Your task to perform on an android device: Search for Italian restaurants on Maps Image 0: 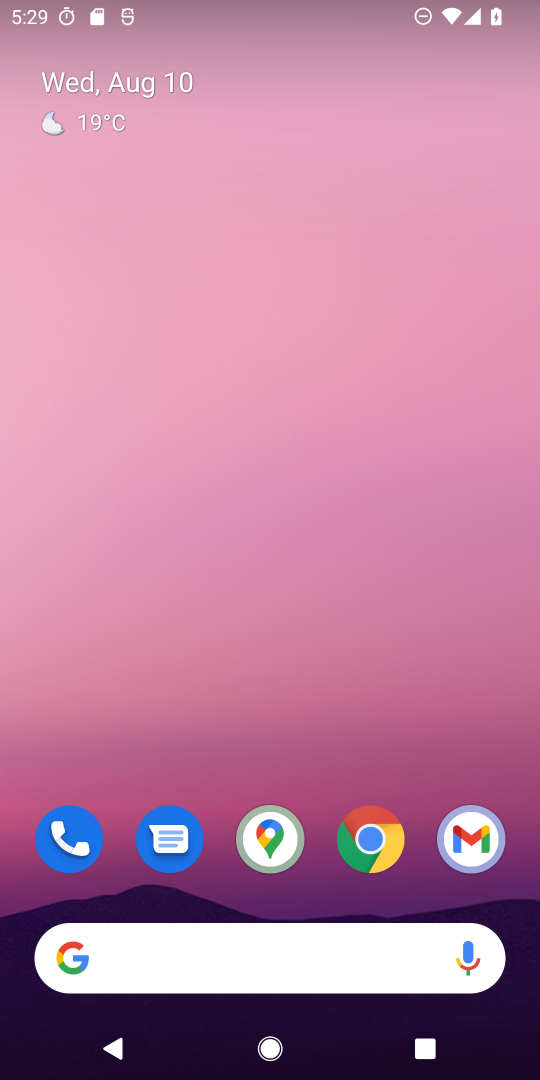
Step 0: click (254, 847)
Your task to perform on an android device: Search for Italian restaurants on Maps Image 1: 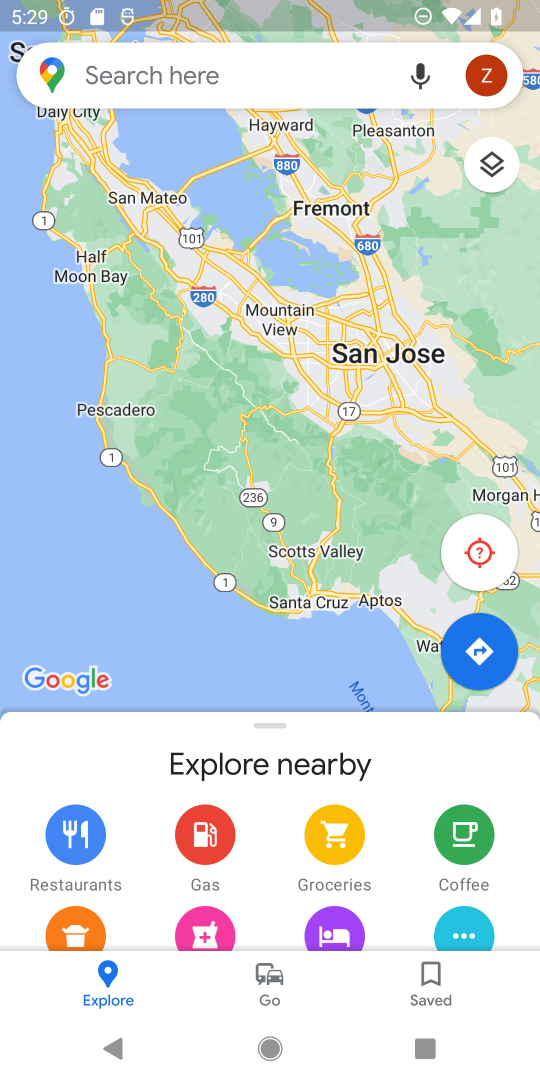
Step 1: click (161, 80)
Your task to perform on an android device: Search for Italian restaurants on Maps Image 2: 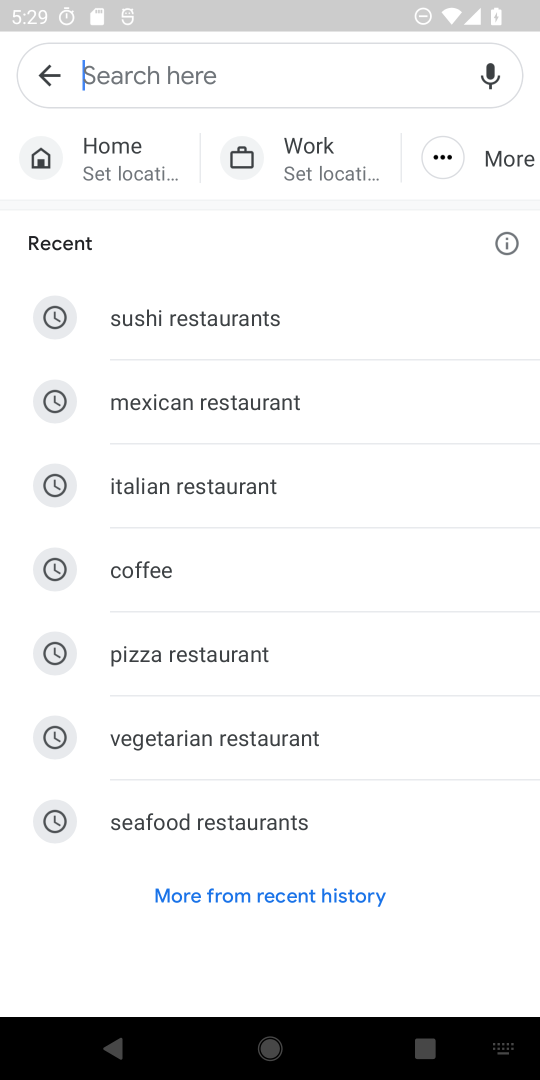
Step 2: type "Italian restaurants"
Your task to perform on an android device: Search for Italian restaurants on Maps Image 3: 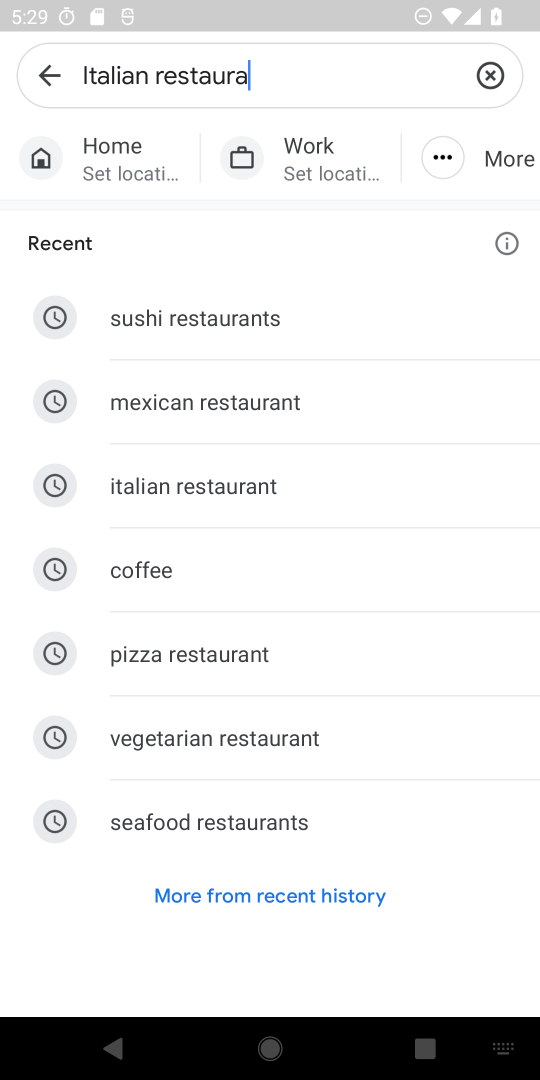
Step 3: type ""
Your task to perform on an android device: Search for Italian restaurants on Maps Image 4: 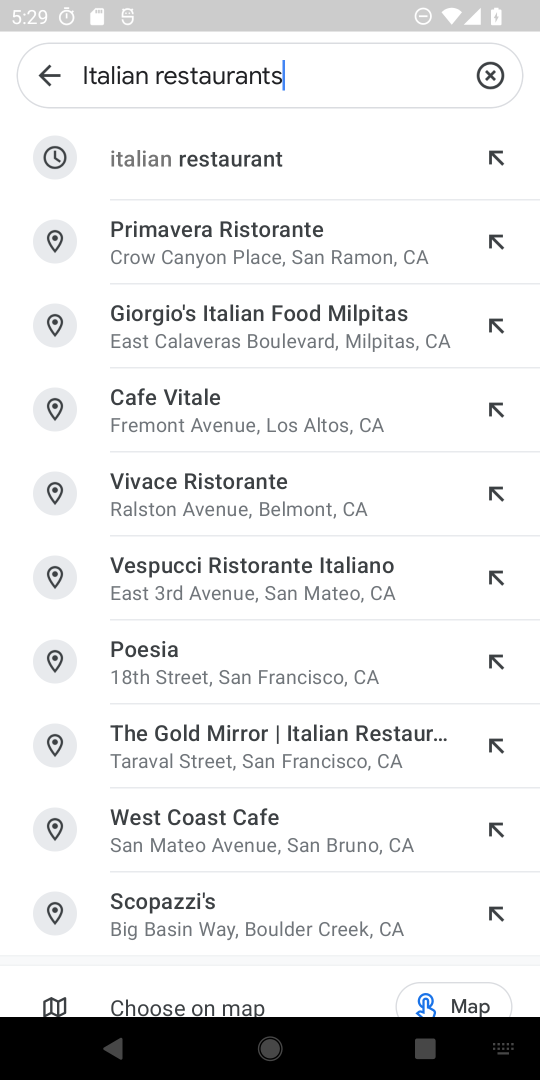
Step 4: click (266, 160)
Your task to perform on an android device: Search for Italian restaurants on Maps Image 5: 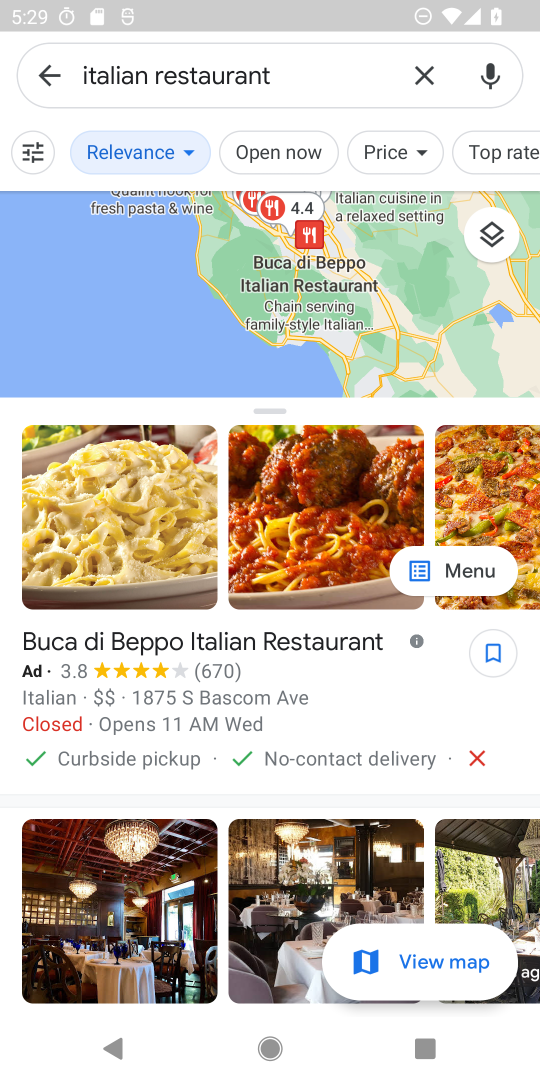
Step 5: task complete